Your task to perform on an android device: Do I have any events this weekend? Image 0: 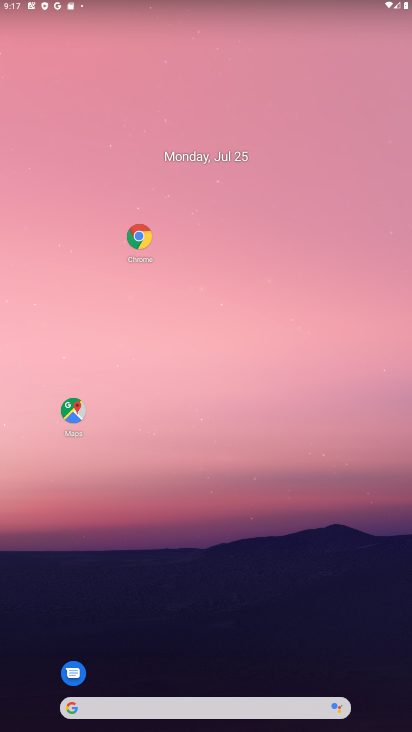
Step 0: drag from (273, 640) to (277, 168)
Your task to perform on an android device: Do I have any events this weekend? Image 1: 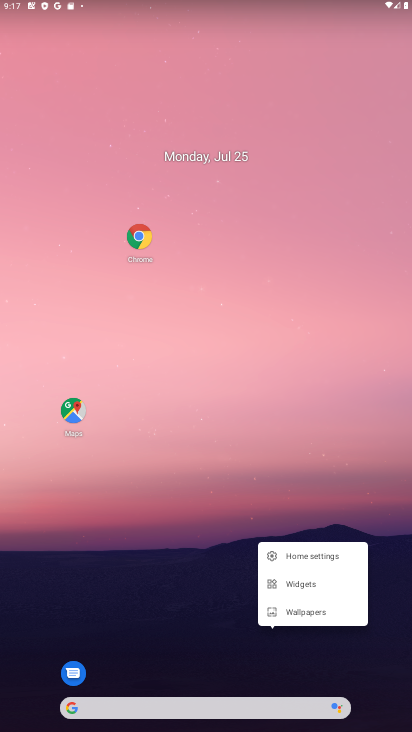
Step 1: click (277, 168)
Your task to perform on an android device: Do I have any events this weekend? Image 2: 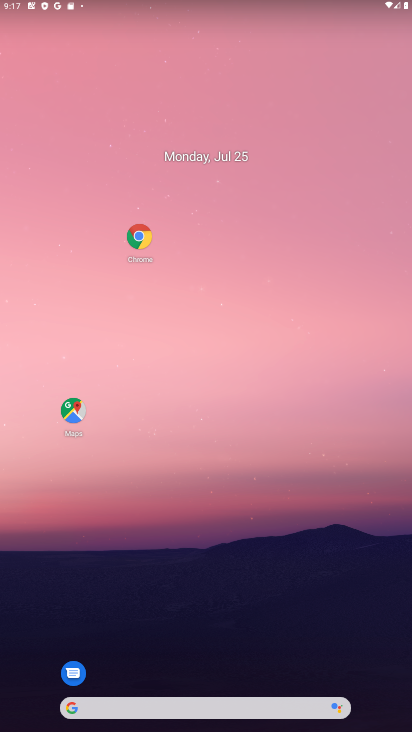
Step 2: task complete